Your task to perform on an android device: turn on bluetooth scan Image 0: 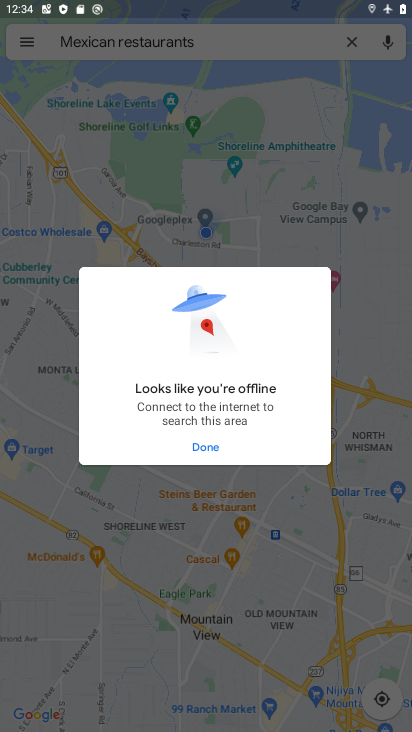
Step 0: press home button
Your task to perform on an android device: turn on bluetooth scan Image 1: 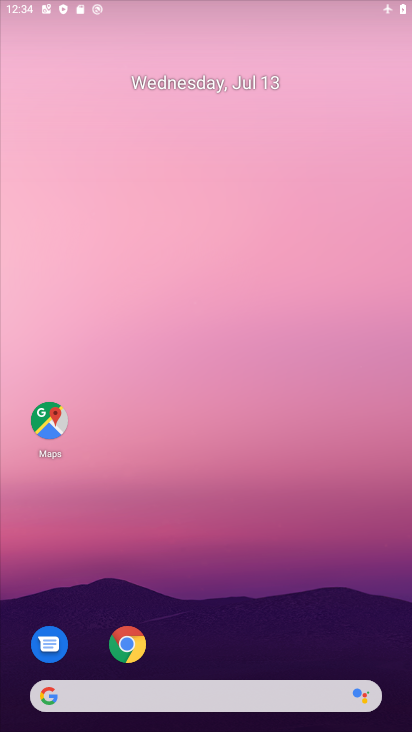
Step 1: drag from (335, 602) to (198, 110)
Your task to perform on an android device: turn on bluetooth scan Image 2: 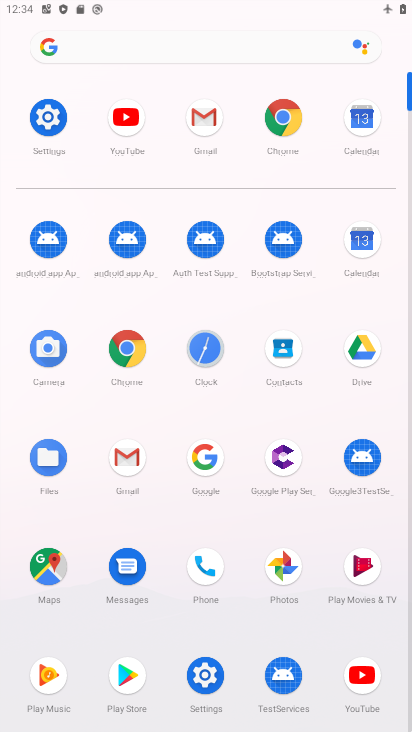
Step 2: click (51, 115)
Your task to perform on an android device: turn on bluetooth scan Image 3: 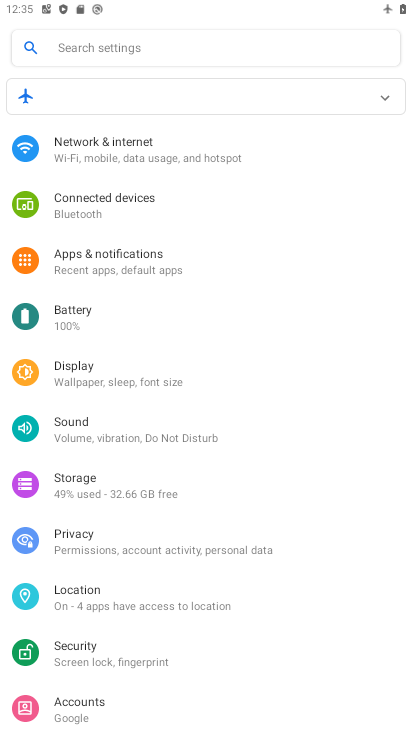
Step 3: click (146, 148)
Your task to perform on an android device: turn on bluetooth scan Image 4: 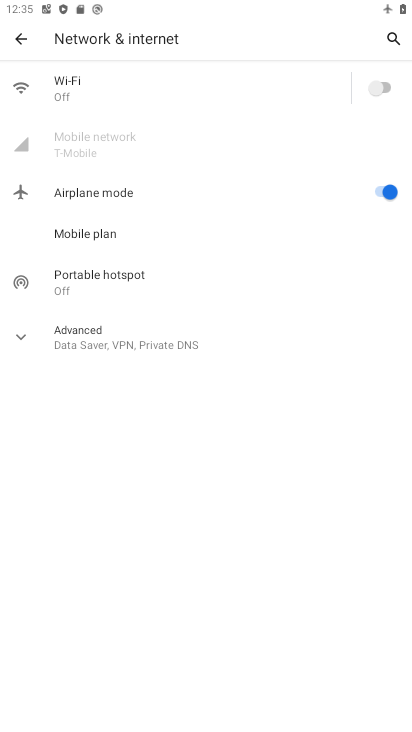
Step 4: click (21, 40)
Your task to perform on an android device: turn on bluetooth scan Image 5: 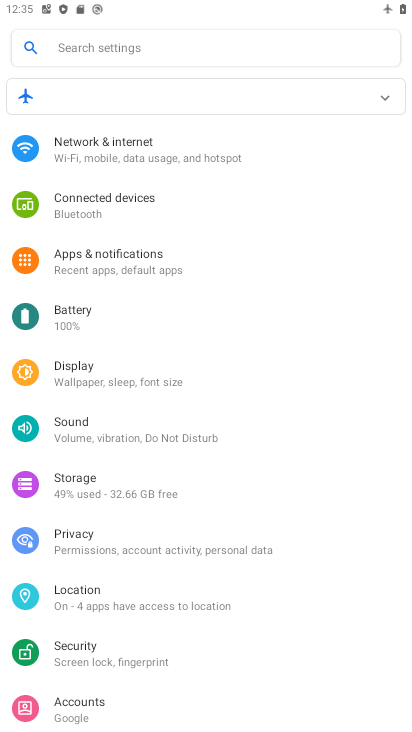
Step 5: click (118, 605)
Your task to perform on an android device: turn on bluetooth scan Image 6: 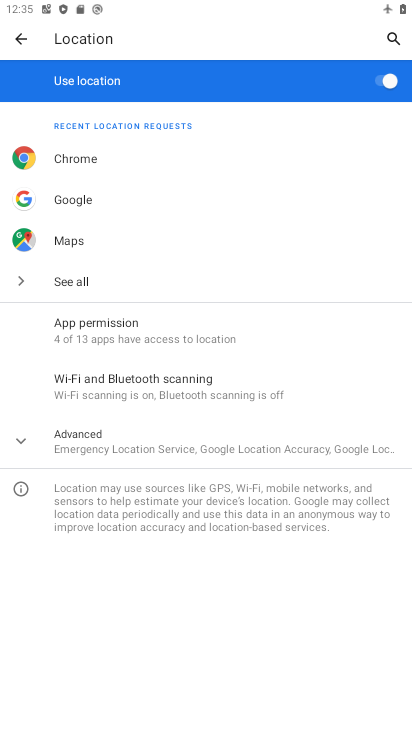
Step 6: click (152, 379)
Your task to perform on an android device: turn on bluetooth scan Image 7: 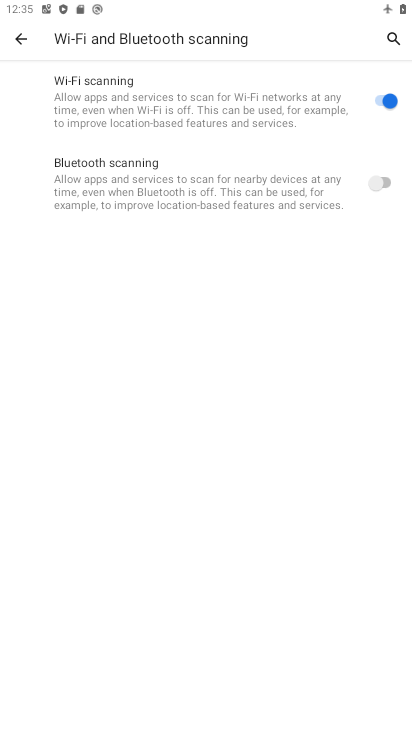
Step 7: click (387, 189)
Your task to perform on an android device: turn on bluetooth scan Image 8: 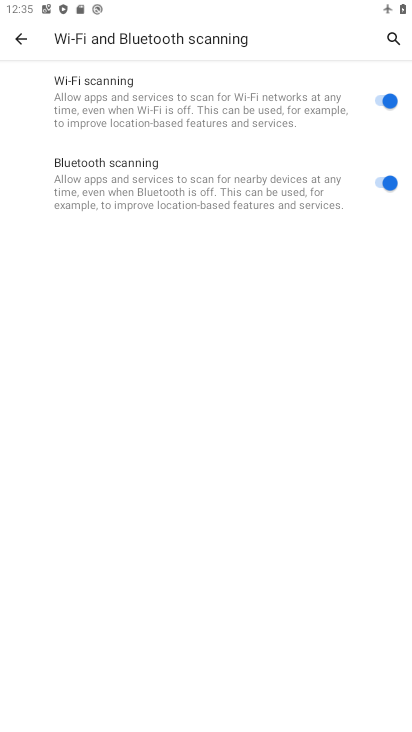
Step 8: task complete